Your task to perform on an android device: Is it going to rain today? Image 0: 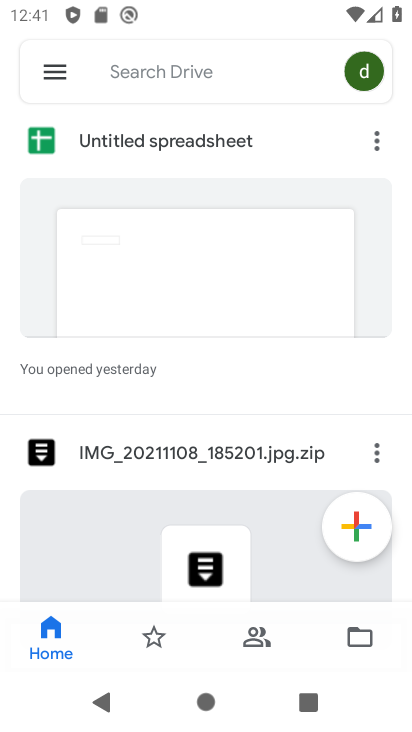
Step 0: press home button
Your task to perform on an android device: Is it going to rain today? Image 1: 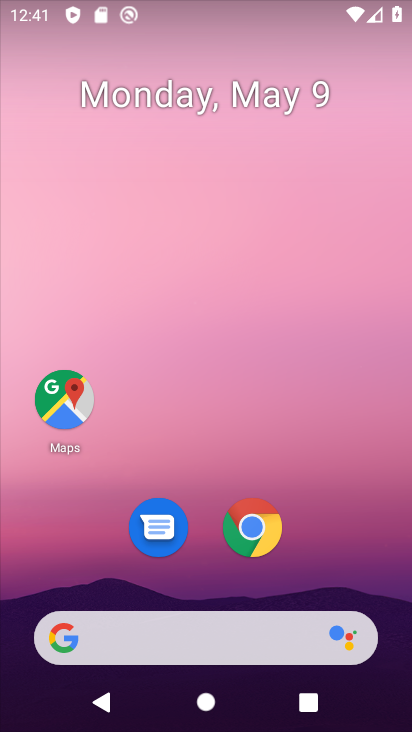
Step 1: drag from (312, 576) to (285, 0)
Your task to perform on an android device: Is it going to rain today? Image 2: 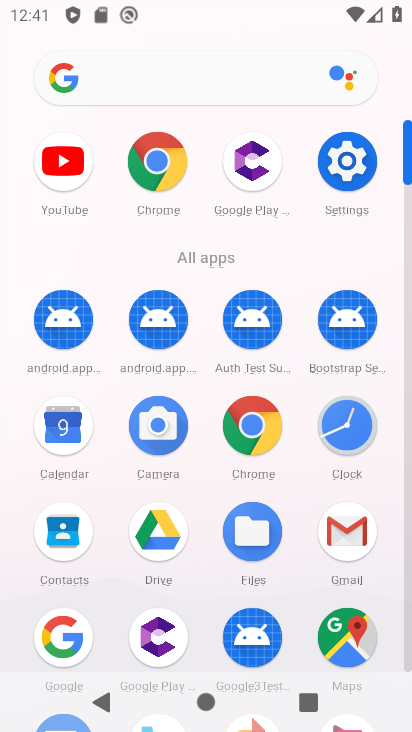
Step 2: click (238, 56)
Your task to perform on an android device: Is it going to rain today? Image 3: 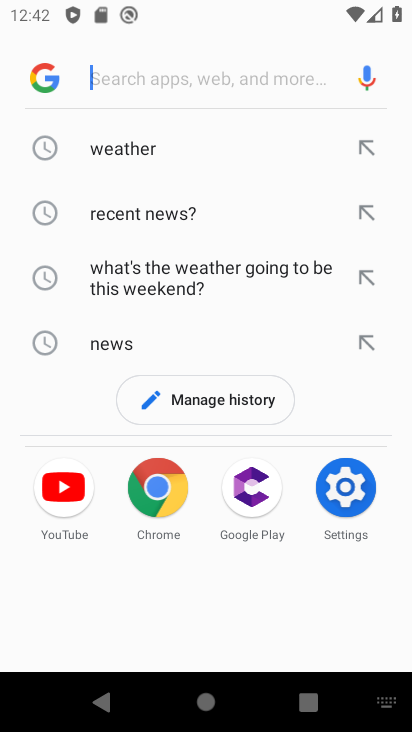
Step 3: type "is it going to rain today"
Your task to perform on an android device: Is it going to rain today? Image 4: 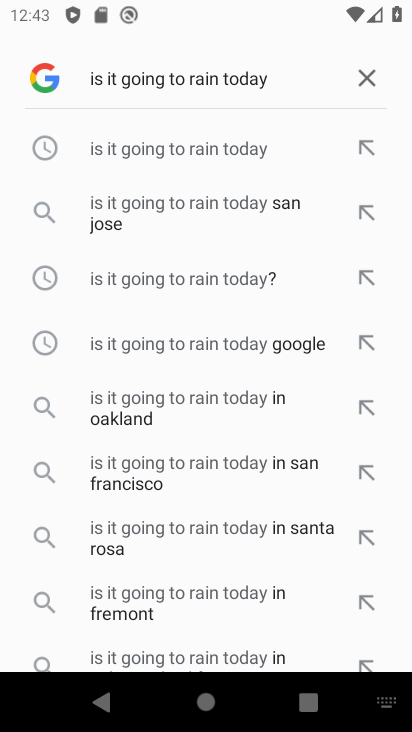
Step 4: click (253, 143)
Your task to perform on an android device: Is it going to rain today? Image 5: 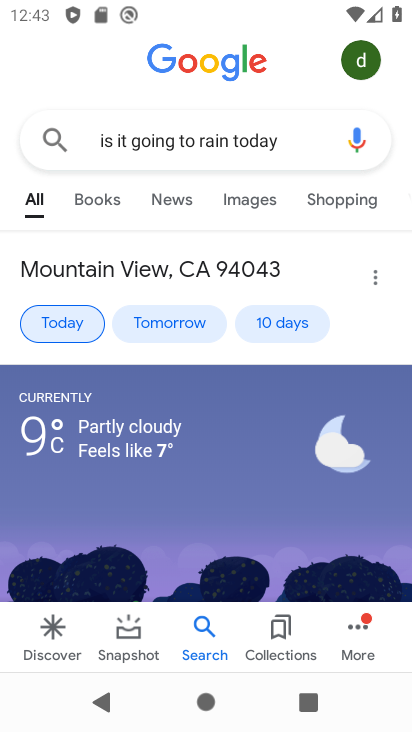
Step 5: task complete